Your task to perform on an android device: Empty the shopping cart on target. Add logitech g pro to the cart on target Image 0: 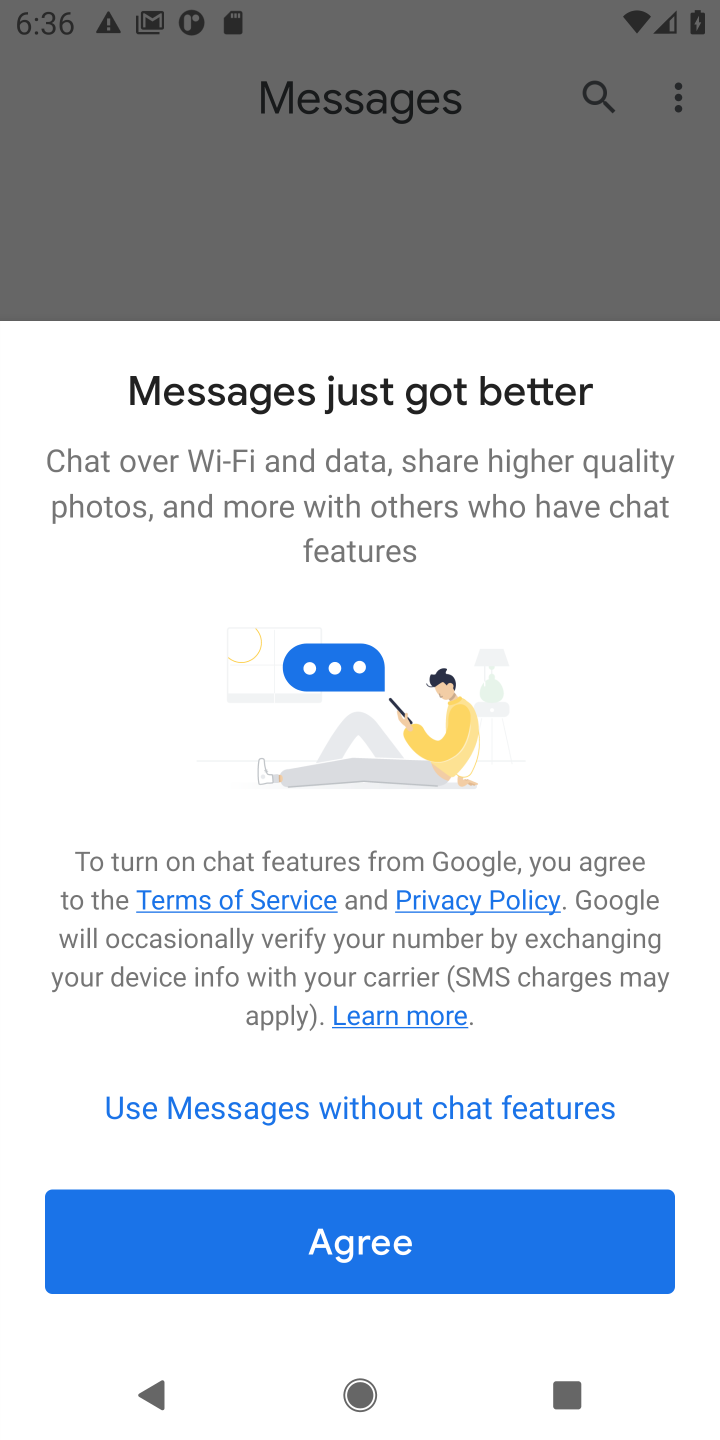
Step 0: press home button
Your task to perform on an android device: Empty the shopping cart on target. Add logitech g pro to the cart on target Image 1: 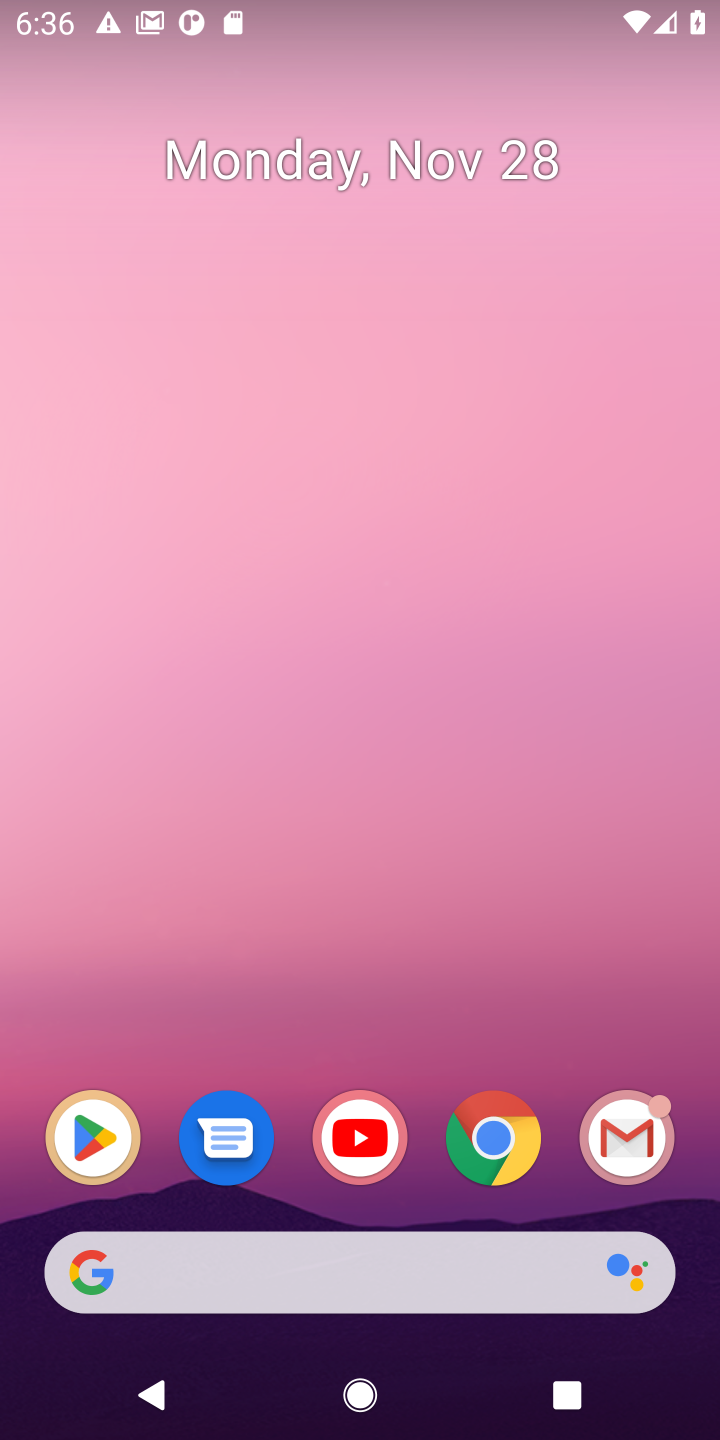
Step 1: click (514, 1144)
Your task to perform on an android device: Empty the shopping cart on target. Add logitech g pro to the cart on target Image 2: 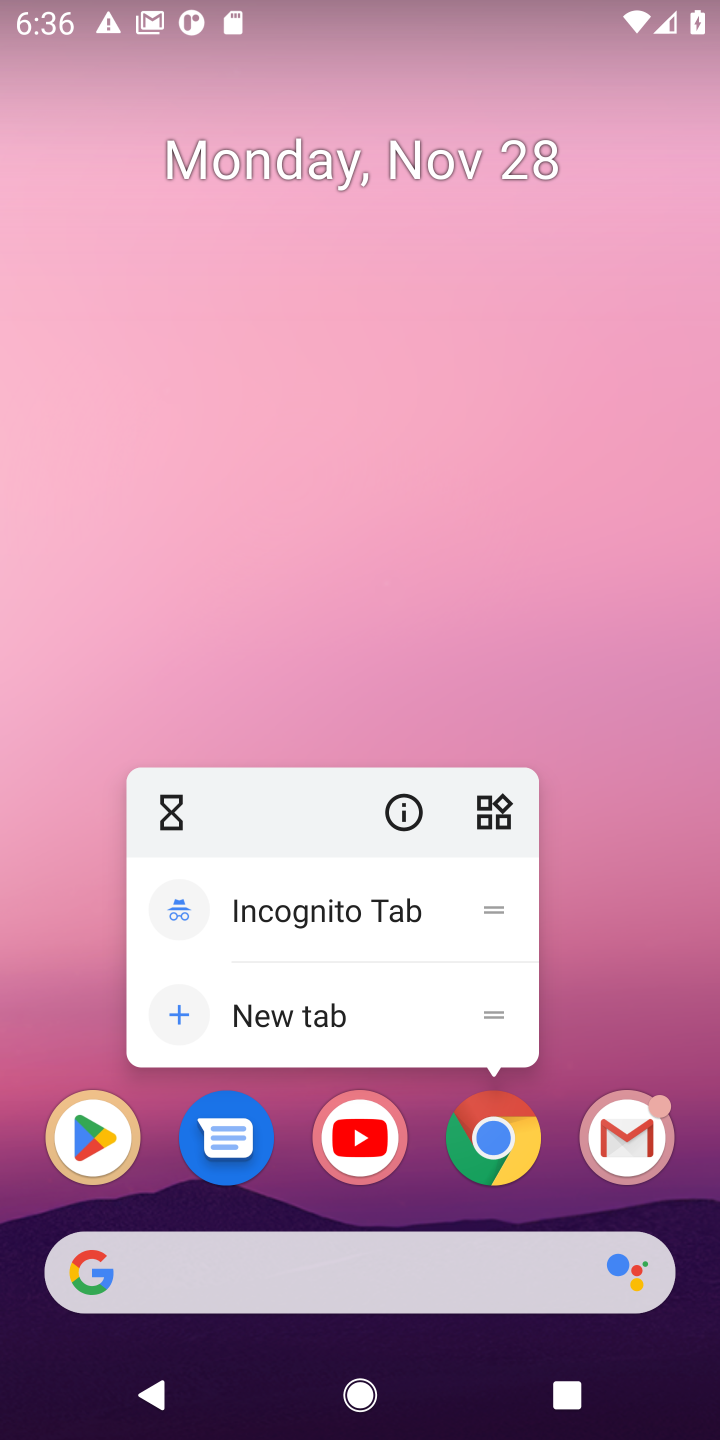
Step 2: click (491, 1150)
Your task to perform on an android device: Empty the shopping cart on target. Add logitech g pro to the cart on target Image 3: 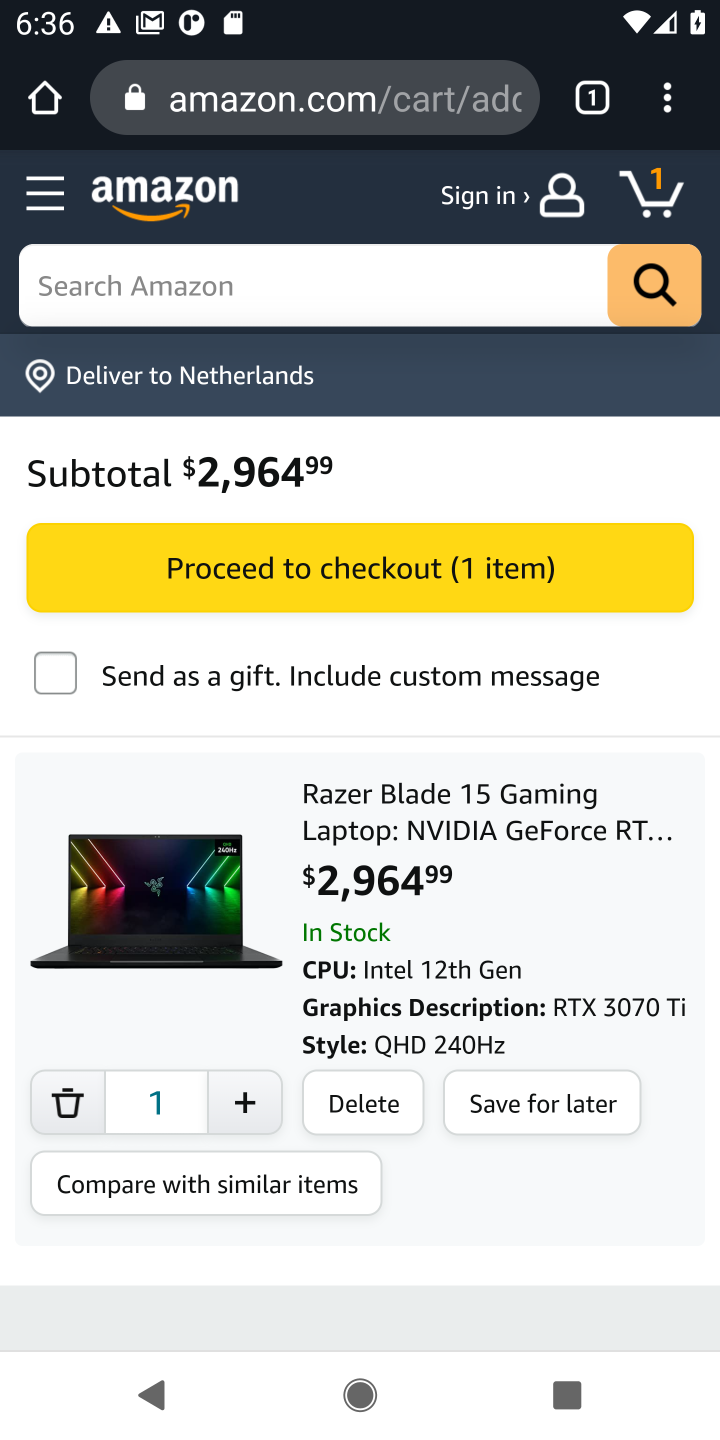
Step 3: click (352, 103)
Your task to perform on an android device: Empty the shopping cart on target. Add logitech g pro to the cart on target Image 4: 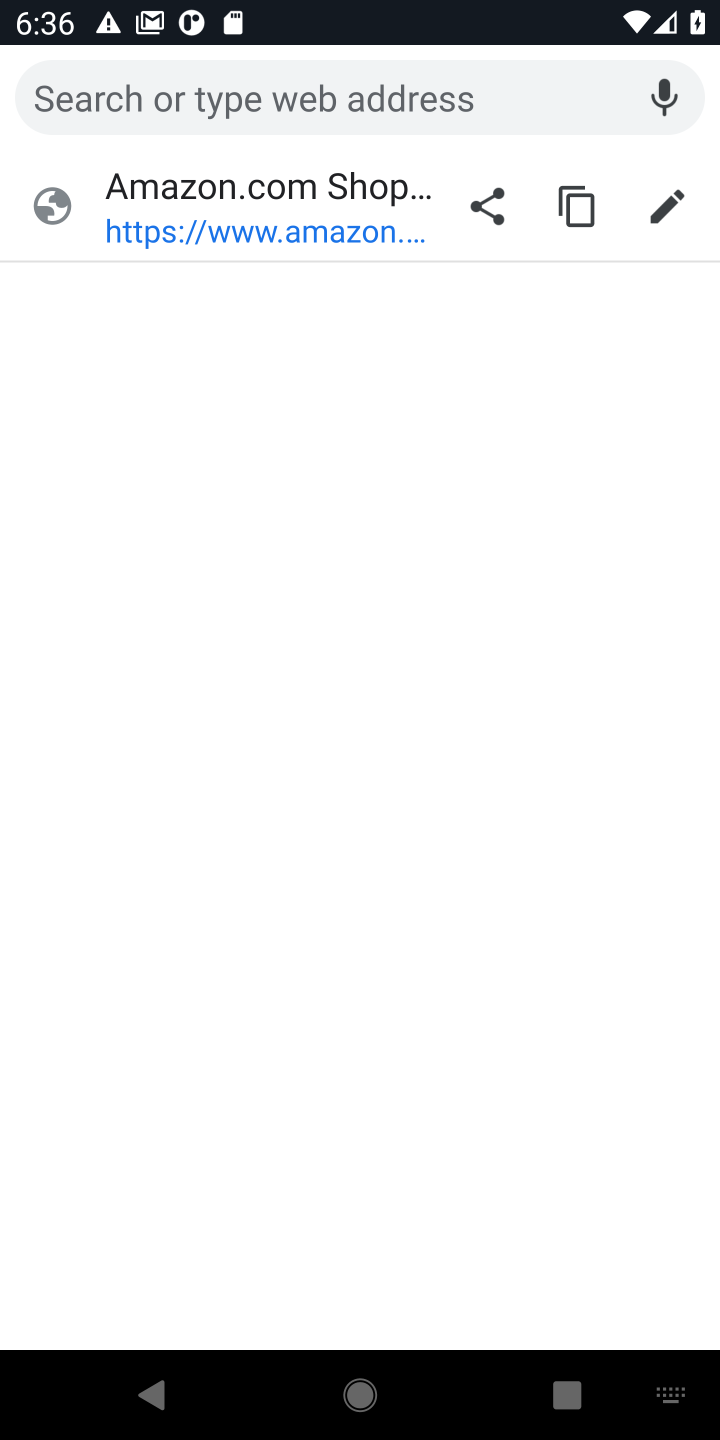
Step 4: type "target.com"
Your task to perform on an android device: Empty the shopping cart on target. Add logitech g pro to the cart on target Image 5: 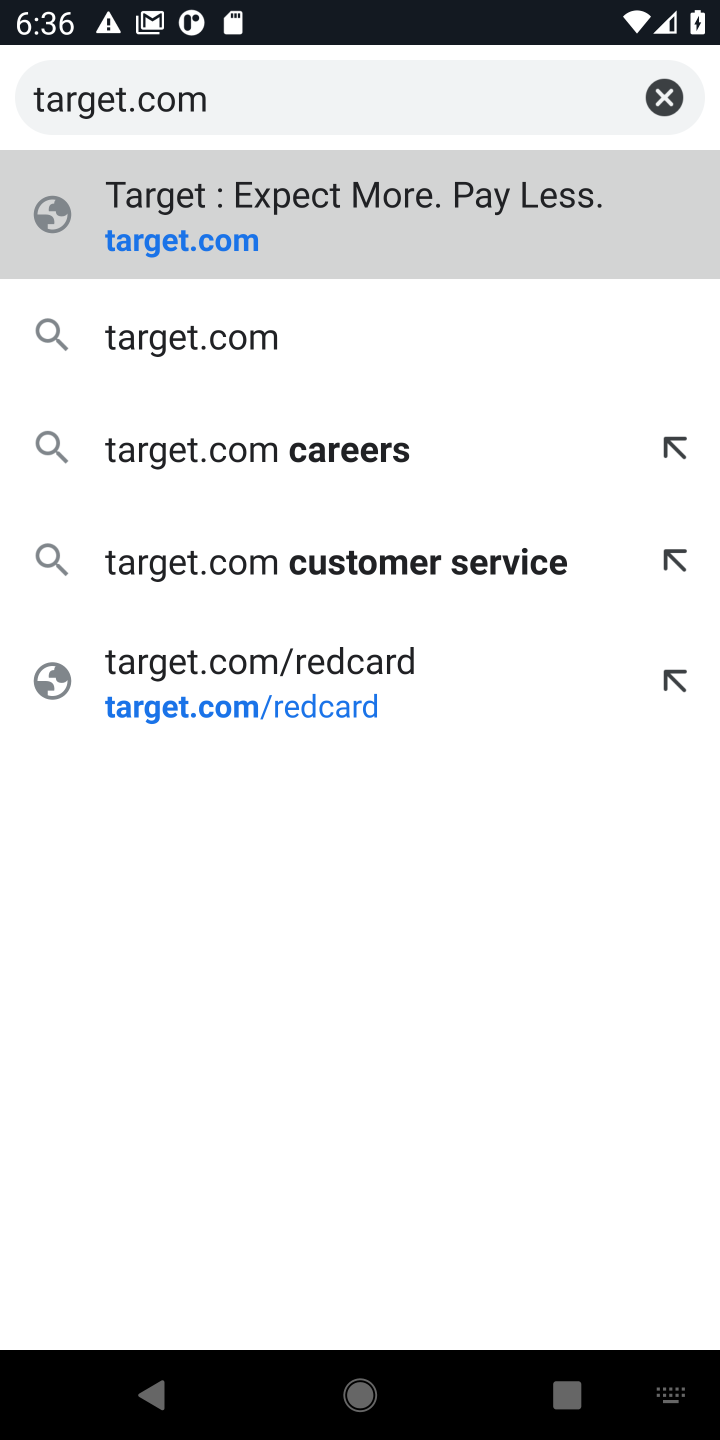
Step 5: click (184, 235)
Your task to perform on an android device: Empty the shopping cart on target. Add logitech g pro to the cart on target Image 6: 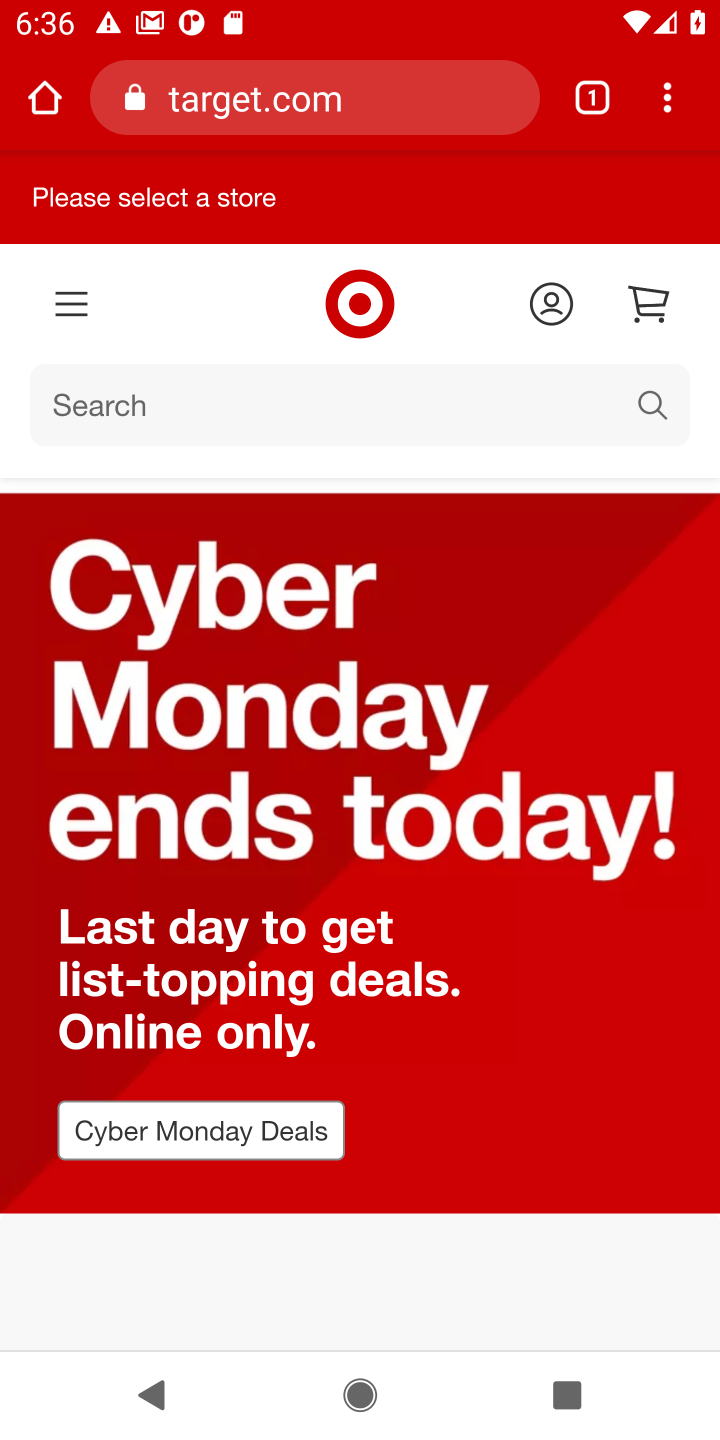
Step 6: click (651, 318)
Your task to perform on an android device: Empty the shopping cart on target. Add logitech g pro to the cart on target Image 7: 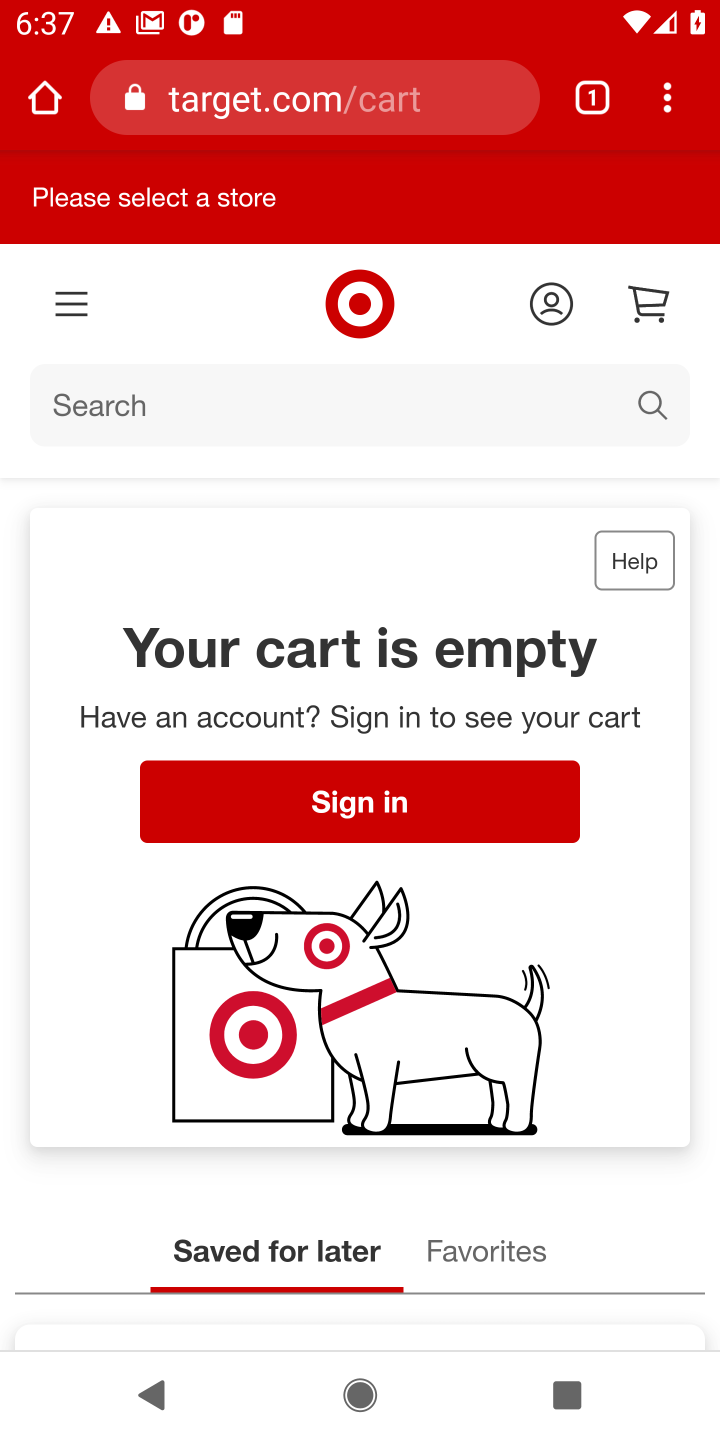
Step 7: click (99, 419)
Your task to perform on an android device: Empty the shopping cart on target. Add logitech g pro to the cart on target Image 8: 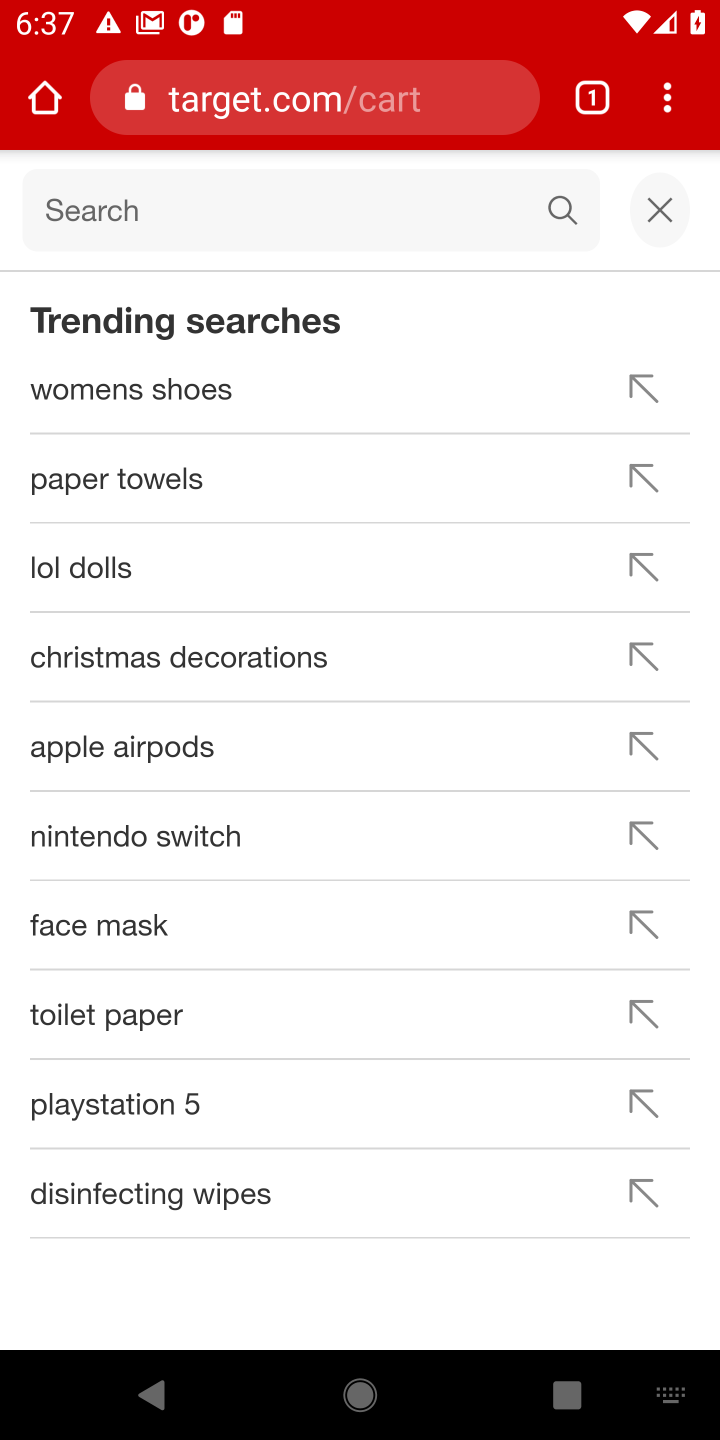
Step 8: type "logitech g pro "
Your task to perform on an android device: Empty the shopping cart on target. Add logitech g pro to the cart on target Image 9: 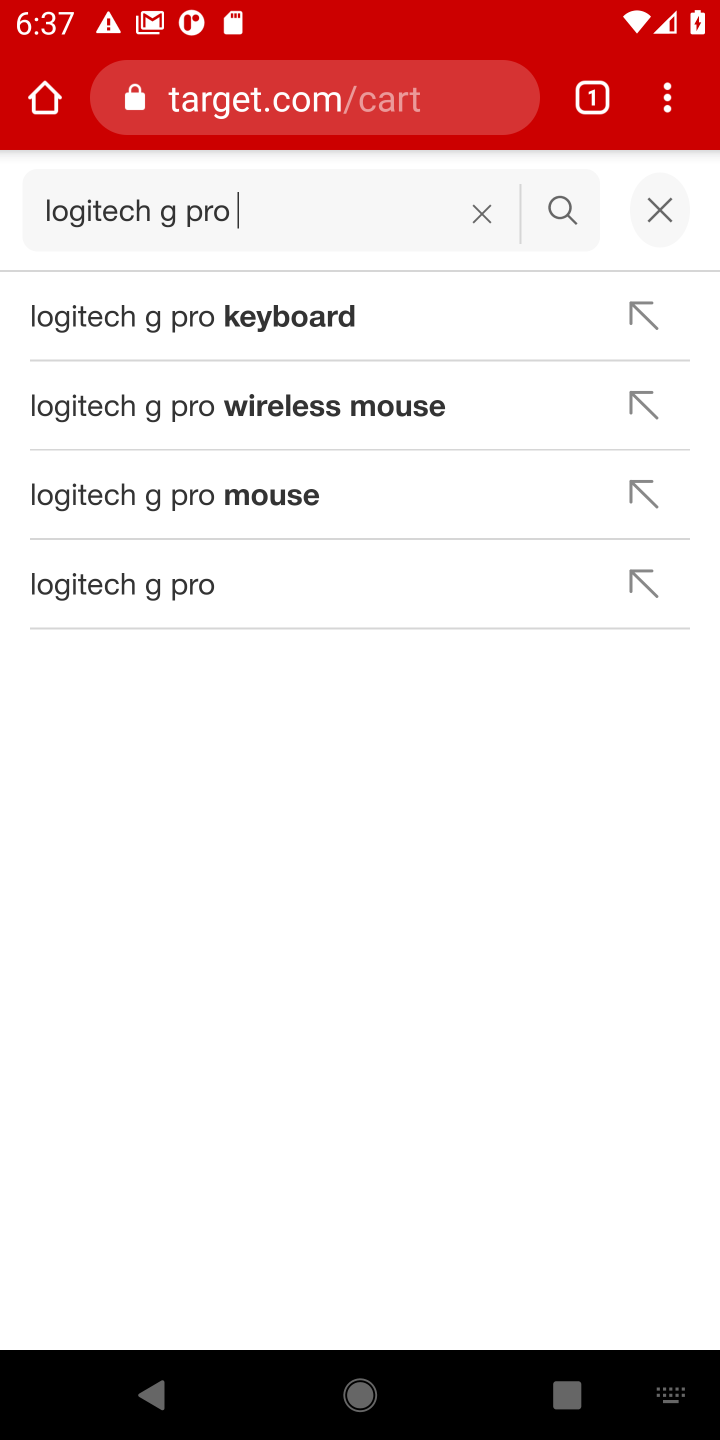
Step 9: click (146, 573)
Your task to perform on an android device: Empty the shopping cart on target. Add logitech g pro to the cart on target Image 10: 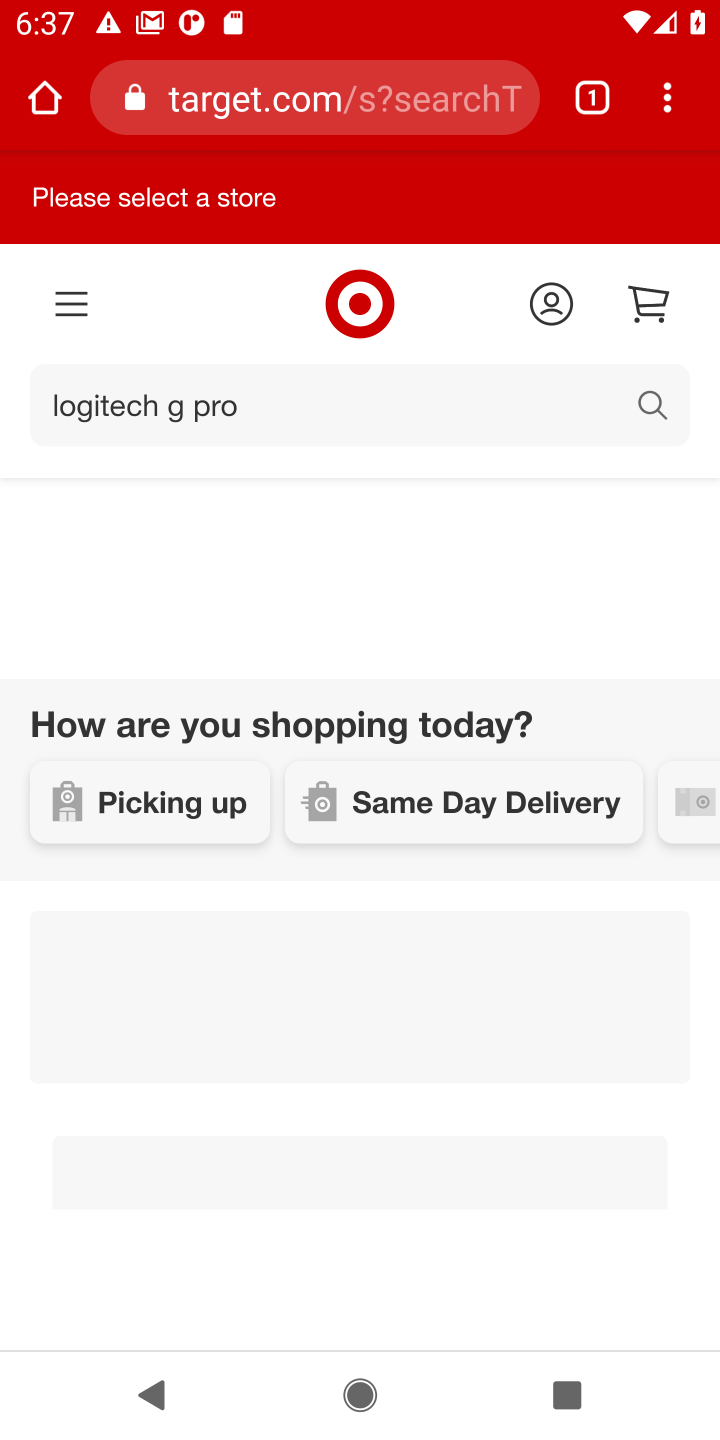
Step 10: task complete